Your task to perform on an android device: Go to privacy settings Image 0: 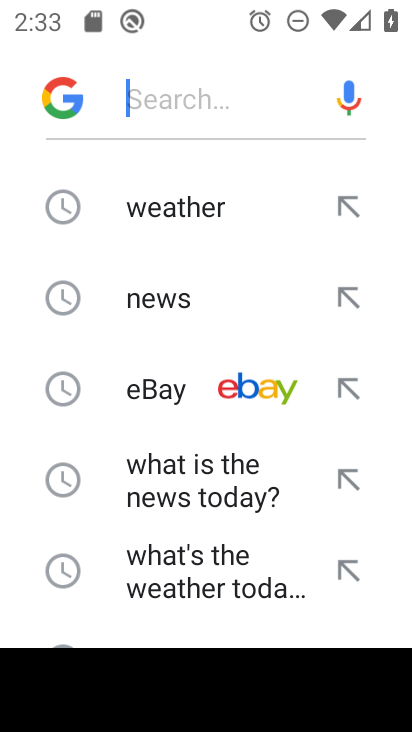
Step 0: press back button
Your task to perform on an android device: Go to privacy settings Image 1: 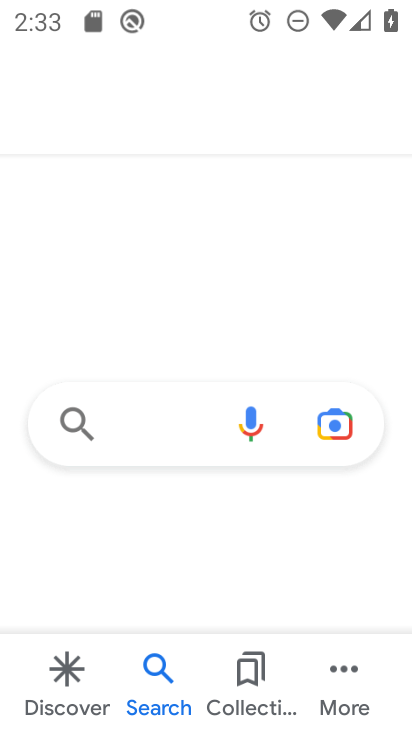
Step 1: press back button
Your task to perform on an android device: Go to privacy settings Image 2: 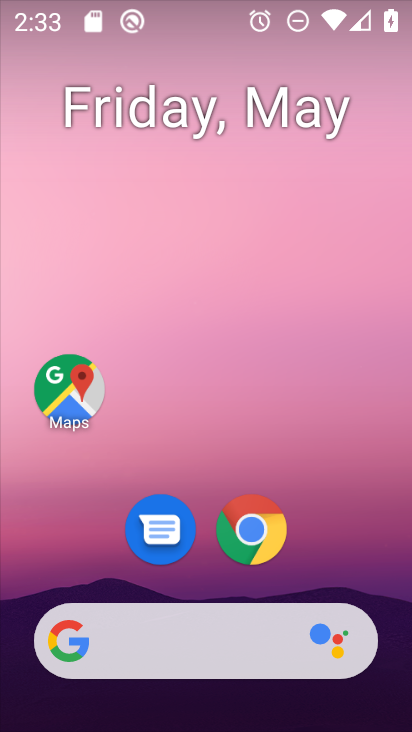
Step 2: click (376, 267)
Your task to perform on an android device: Go to privacy settings Image 3: 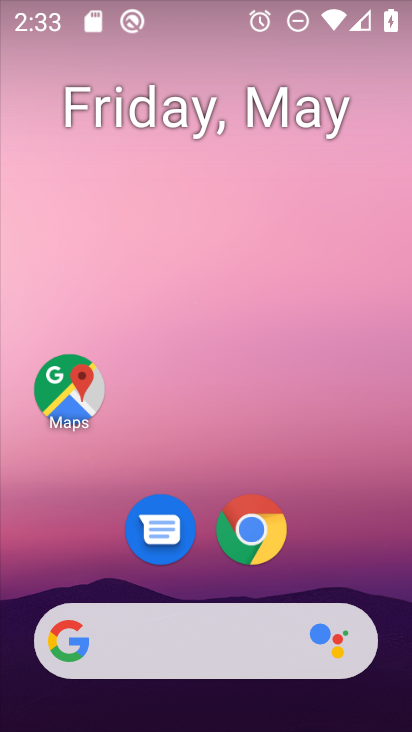
Step 3: drag from (374, 562) to (360, 257)
Your task to perform on an android device: Go to privacy settings Image 4: 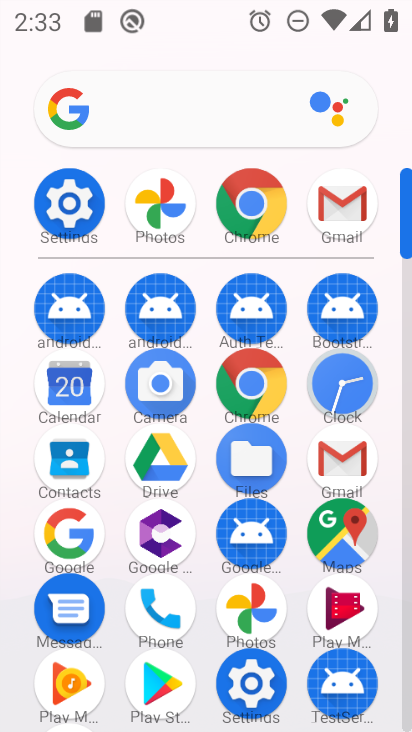
Step 4: click (272, 203)
Your task to perform on an android device: Go to privacy settings Image 5: 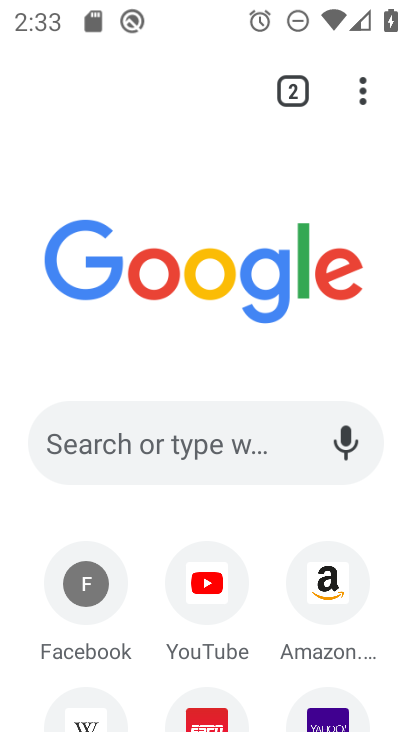
Step 5: click (359, 85)
Your task to perform on an android device: Go to privacy settings Image 6: 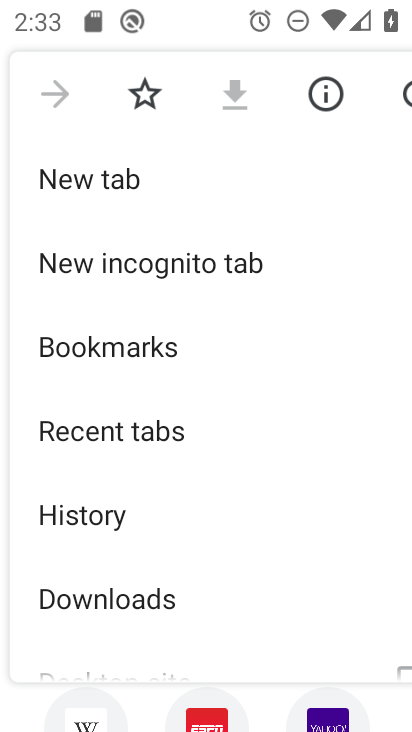
Step 6: drag from (255, 568) to (242, 395)
Your task to perform on an android device: Go to privacy settings Image 7: 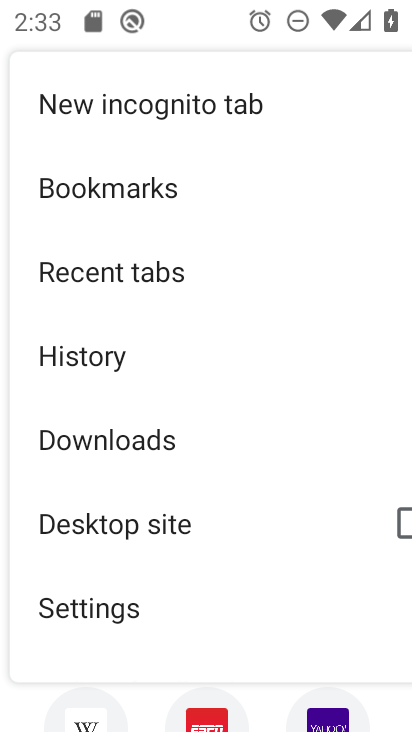
Step 7: click (91, 605)
Your task to perform on an android device: Go to privacy settings Image 8: 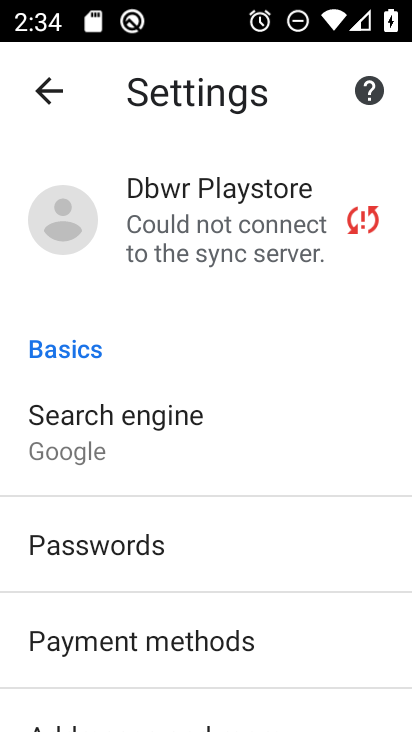
Step 8: drag from (305, 397) to (303, 359)
Your task to perform on an android device: Go to privacy settings Image 9: 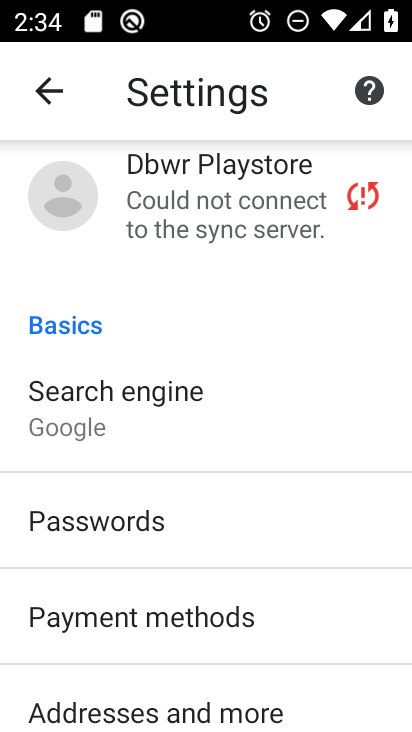
Step 9: drag from (325, 684) to (314, 385)
Your task to perform on an android device: Go to privacy settings Image 10: 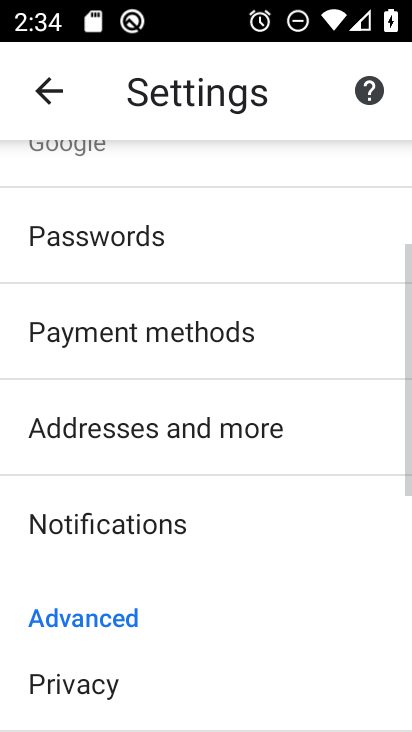
Step 10: drag from (285, 689) to (279, 347)
Your task to perform on an android device: Go to privacy settings Image 11: 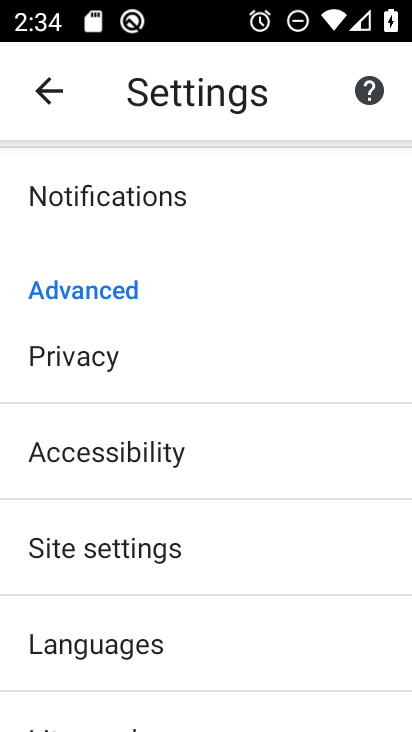
Step 11: drag from (315, 614) to (295, 277)
Your task to perform on an android device: Go to privacy settings Image 12: 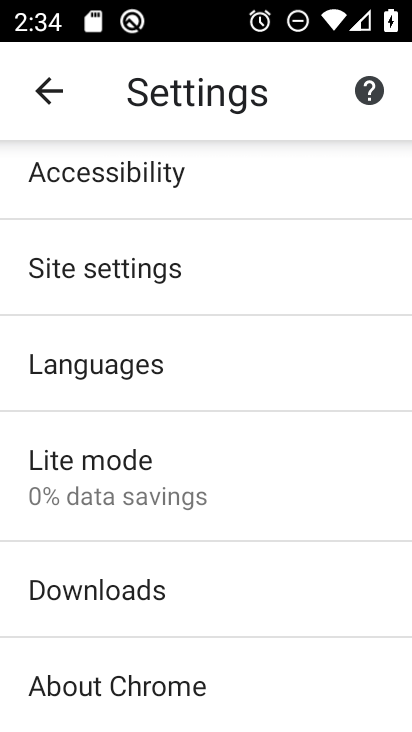
Step 12: drag from (302, 337) to (315, 548)
Your task to perform on an android device: Go to privacy settings Image 13: 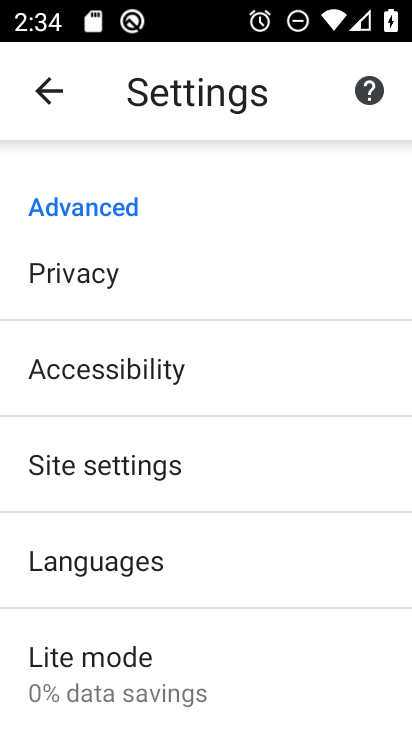
Step 13: click (57, 270)
Your task to perform on an android device: Go to privacy settings Image 14: 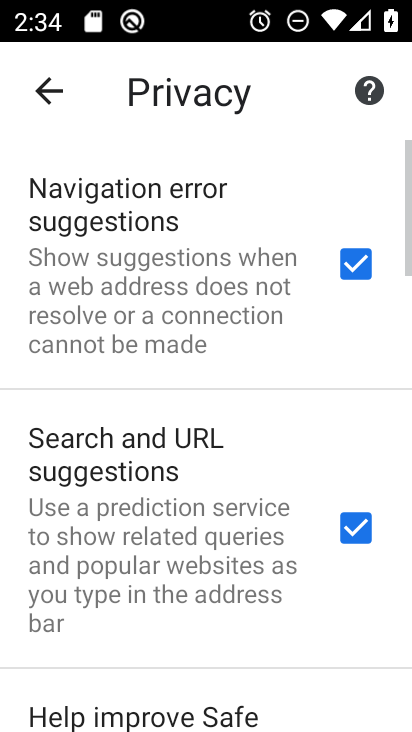
Step 14: task complete